Your task to perform on an android device: change your default location settings in chrome Image 0: 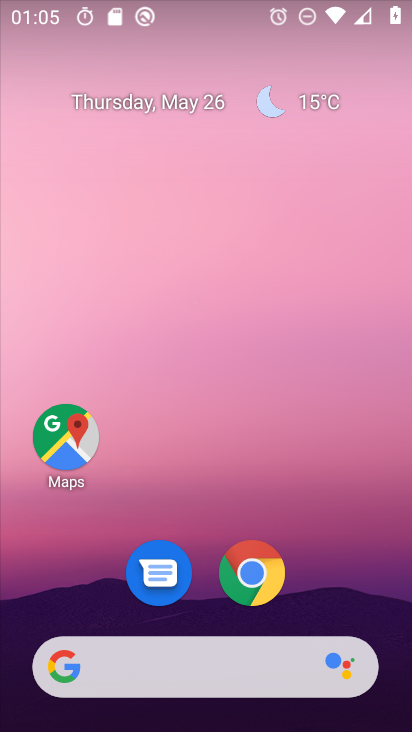
Step 0: click (246, 576)
Your task to perform on an android device: change your default location settings in chrome Image 1: 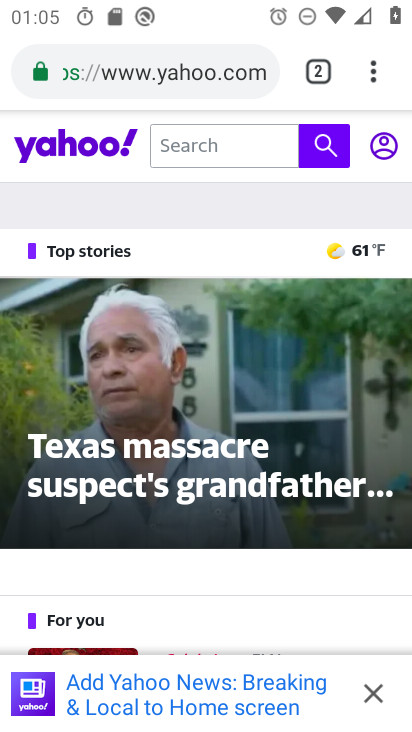
Step 1: click (370, 72)
Your task to perform on an android device: change your default location settings in chrome Image 2: 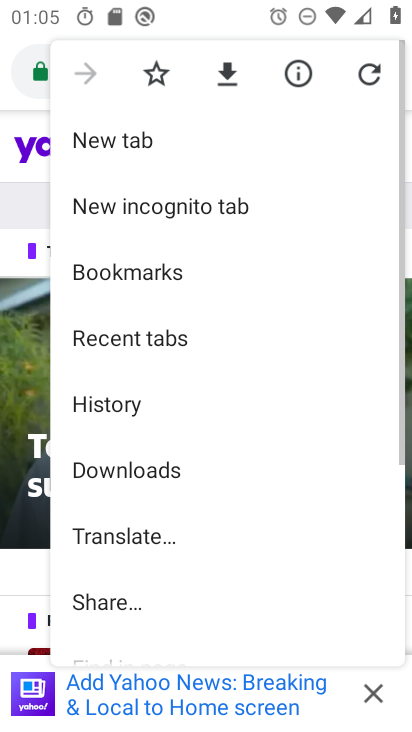
Step 2: drag from (224, 520) to (197, 125)
Your task to perform on an android device: change your default location settings in chrome Image 3: 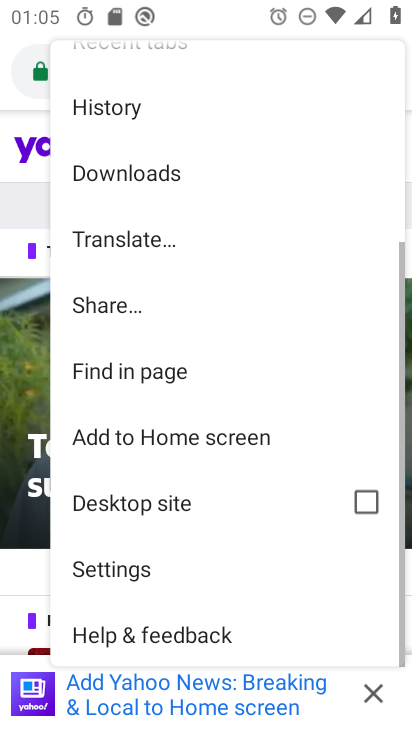
Step 3: click (144, 565)
Your task to perform on an android device: change your default location settings in chrome Image 4: 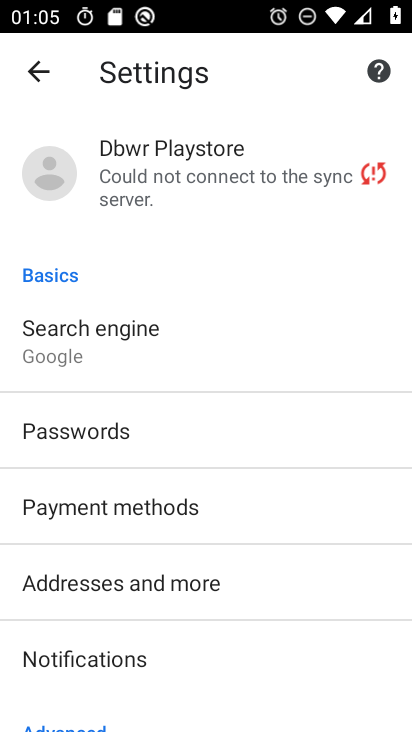
Step 4: drag from (234, 637) to (207, 200)
Your task to perform on an android device: change your default location settings in chrome Image 5: 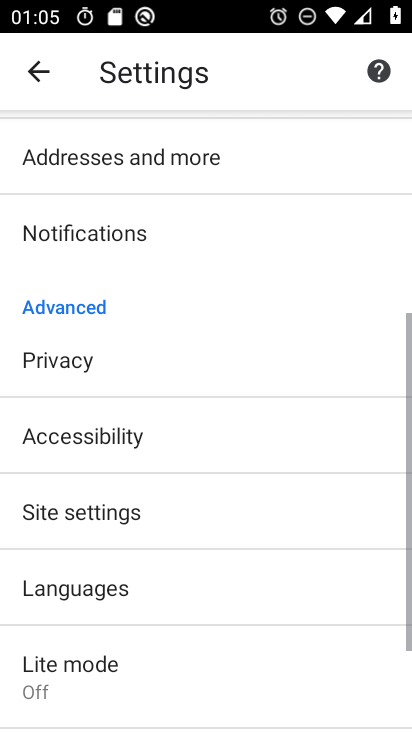
Step 5: drag from (192, 454) to (168, 345)
Your task to perform on an android device: change your default location settings in chrome Image 6: 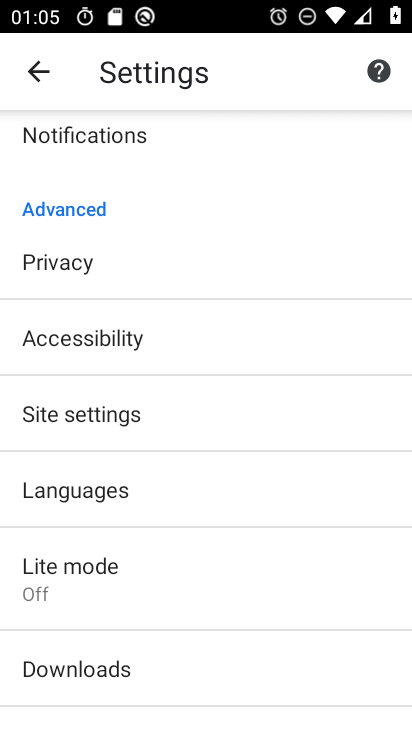
Step 6: click (101, 415)
Your task to perform on an android device: change your default location settings in chrome Image 7: 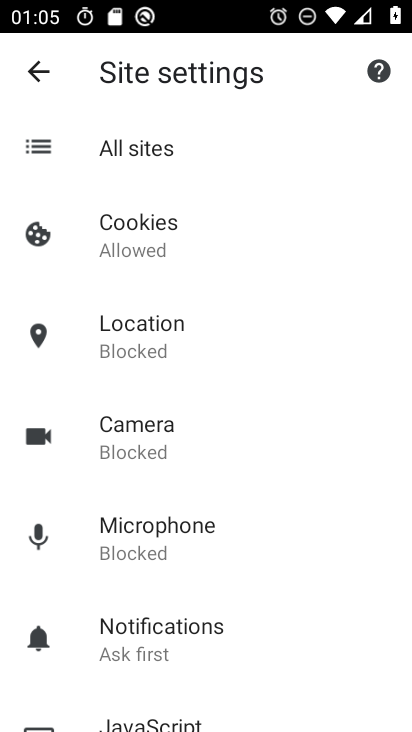
Step 7: click (142, 338)
Your task to perform on an android device: change your default location settings in chrome Image 8: 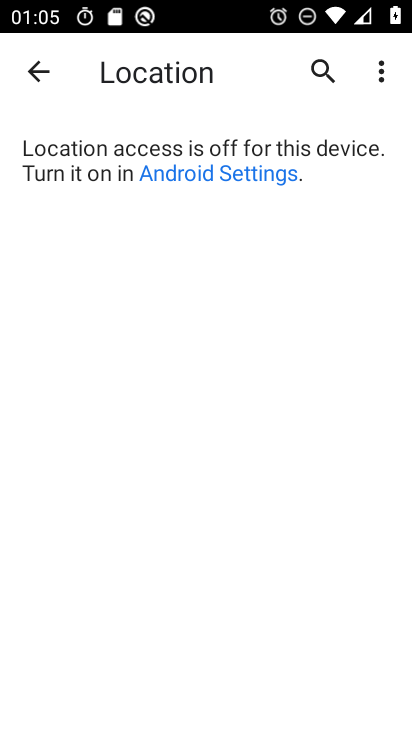
Step 8: click (215, 180)
Your task to perform on an android device: change your default location settings in chrome Image 9: 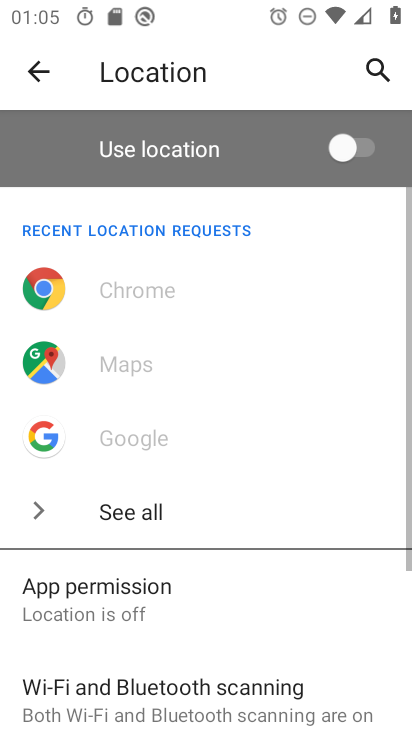
Step 9: click (321, 154)
Your task to perform on an android device: change your default location settings in chrome Image 10: 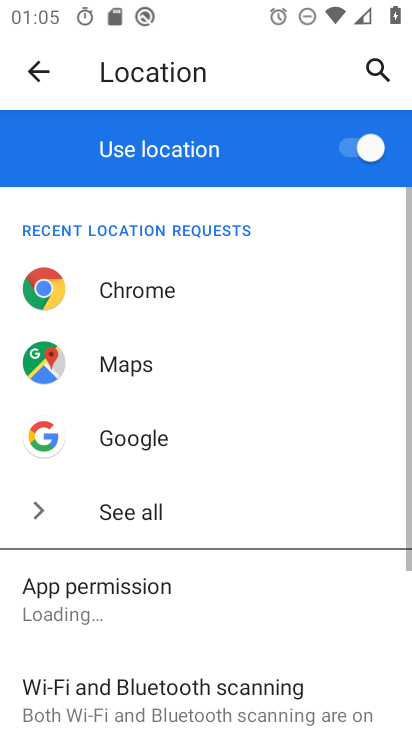
Step 10: task complete